Your task to perform on an android device: change alarm snooze length Image 0: 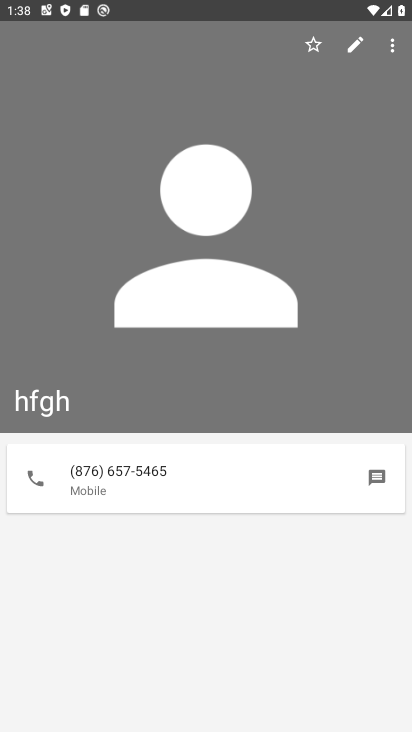
Step 0: press home button
Your task to perform on an android device: change alarm snooze length Image 1: 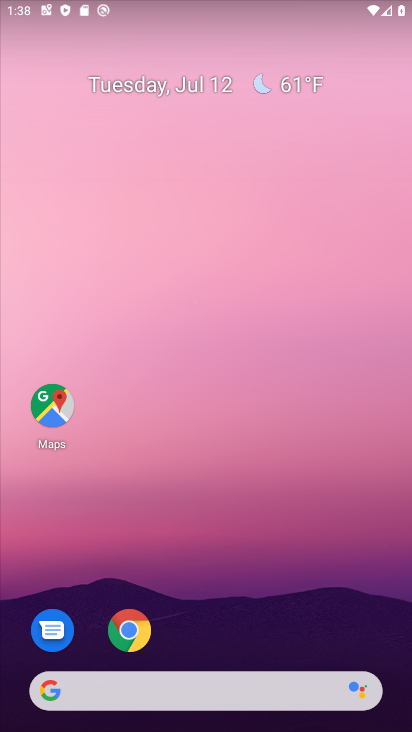
Step 1: drag from (214, 627) to (221, 145)
Your task to perform on an android device: change alarm snooze length Image 2: 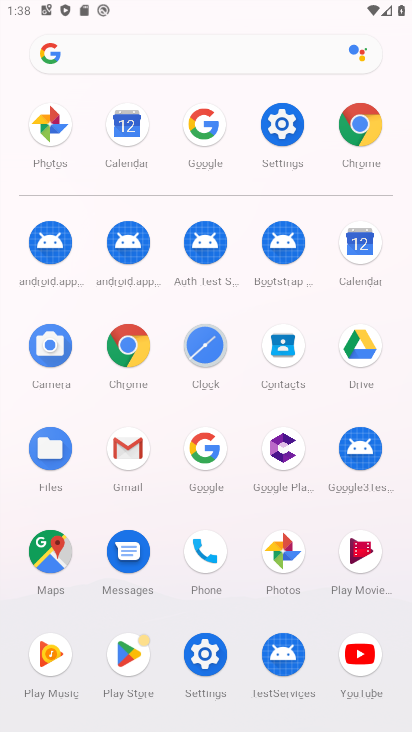
Step 2: click (187, 336)
Your task to perform on an android device: change alarm snooze length Image 3: 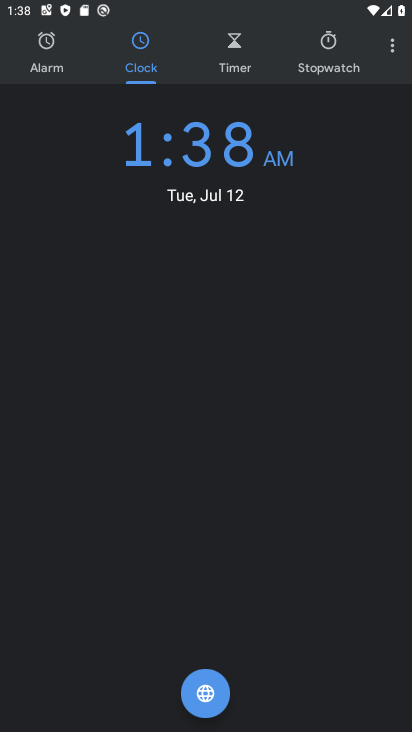
Step 3: click (389, 45)
Your task to perform on an android device: change alarm snooze length Image 4: 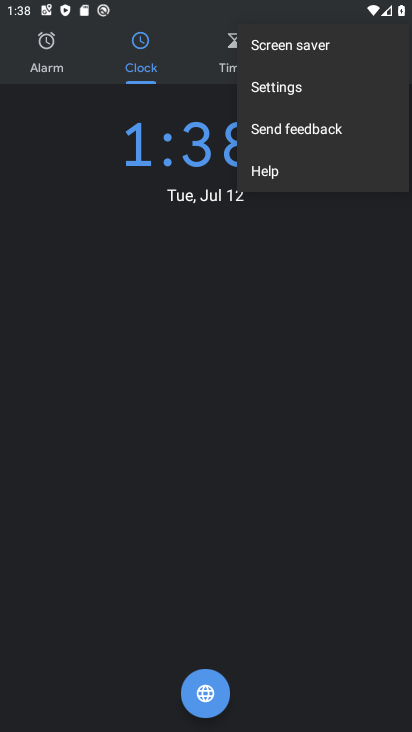
Step 4: click (327, 86)
Your task to perform on an android device: change alarm snooze length Image 5: 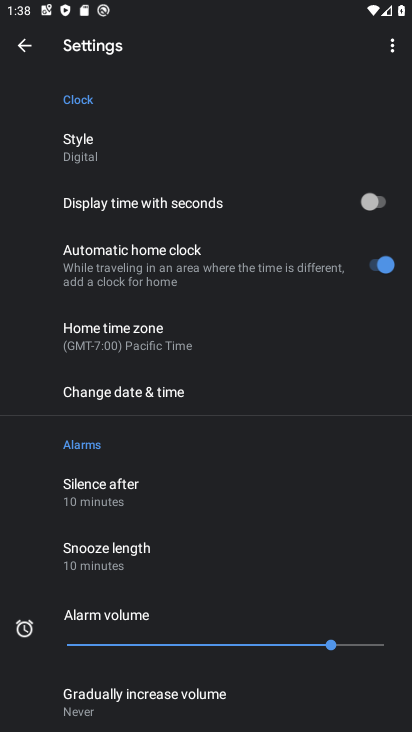
Step 5: click (144, 550)
Your task to perform on an android device: change alarm snooze length Image 6: 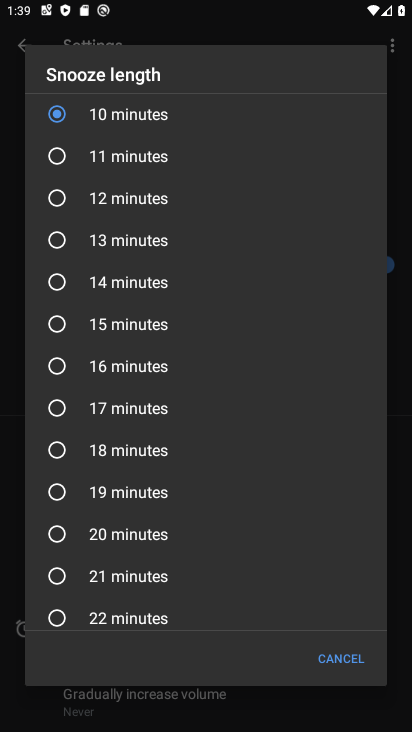
Step 6: click (143, 487)
Your task to perform on an android device: change alarm snooze length Image 7: 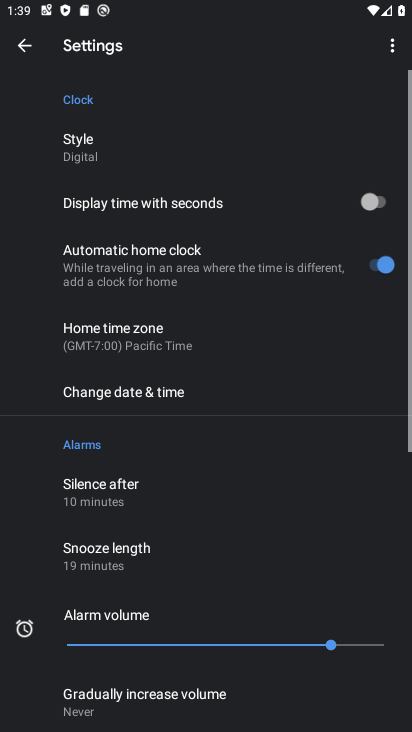
Step 7: task complete